Your task to perform on an android device: change text size in settings app Image 0: 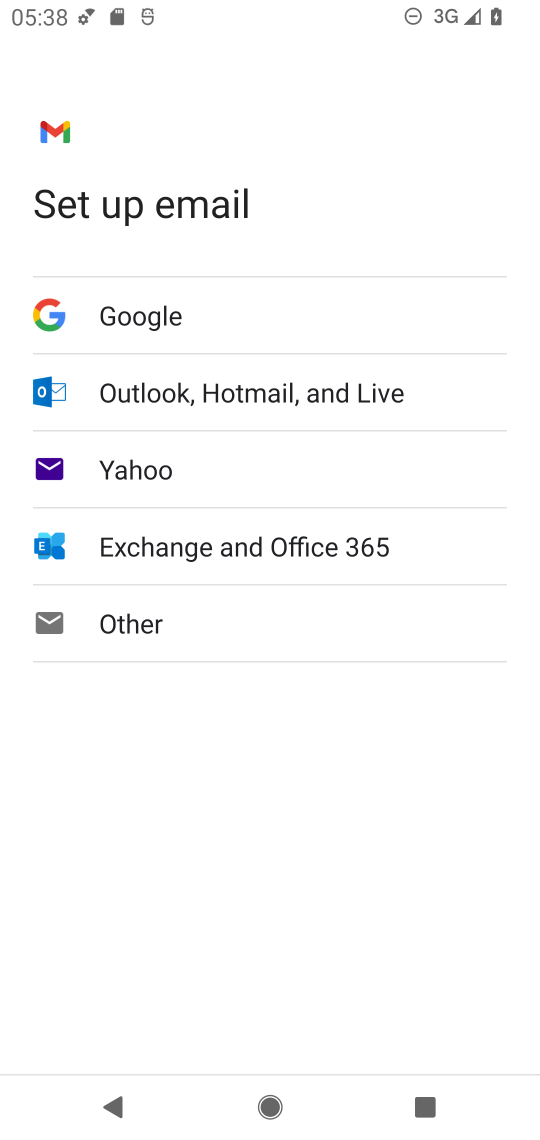
Step 0: press home button
Your task to perform on an android device: change text size in settings app Image 1: 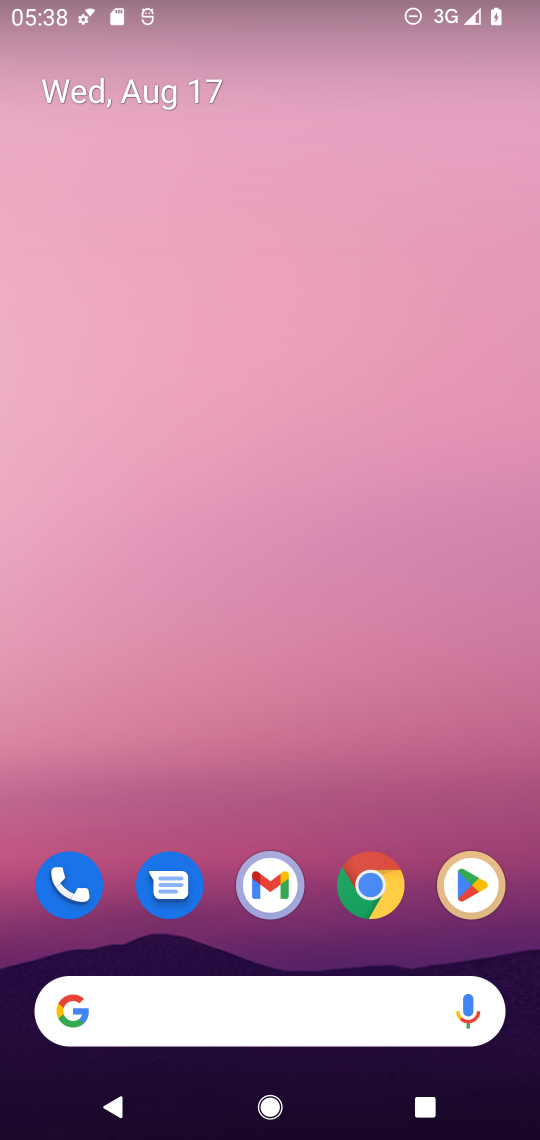
Step 1: drag from (303, 824) to (294, 53)
Your task to perform on an android device: change text size in settings app Image 2: 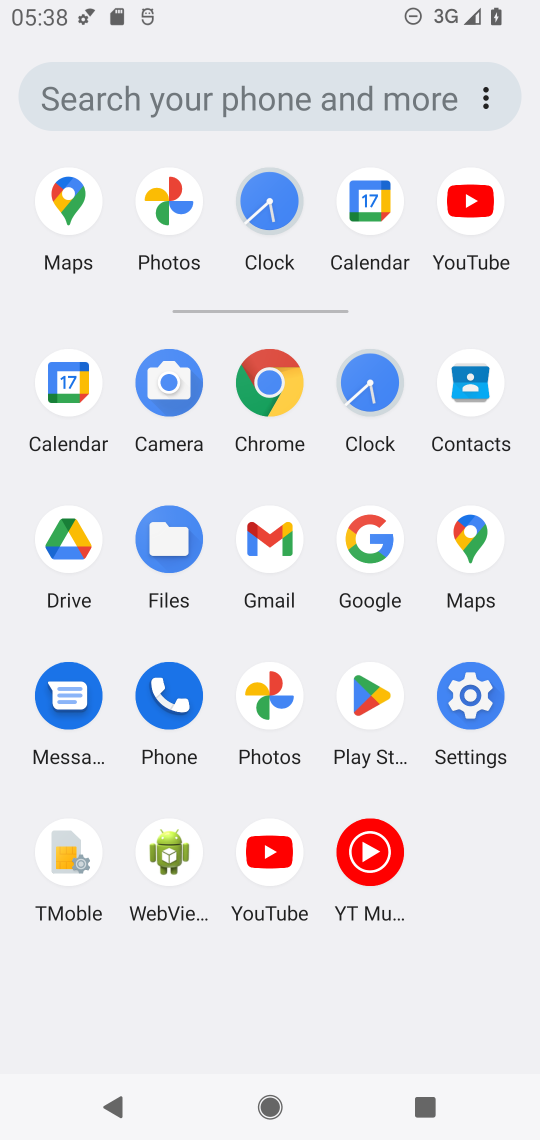
Step 2: click (465, 692)
Your task to perform on an android device: change text size in settings app Image 3: 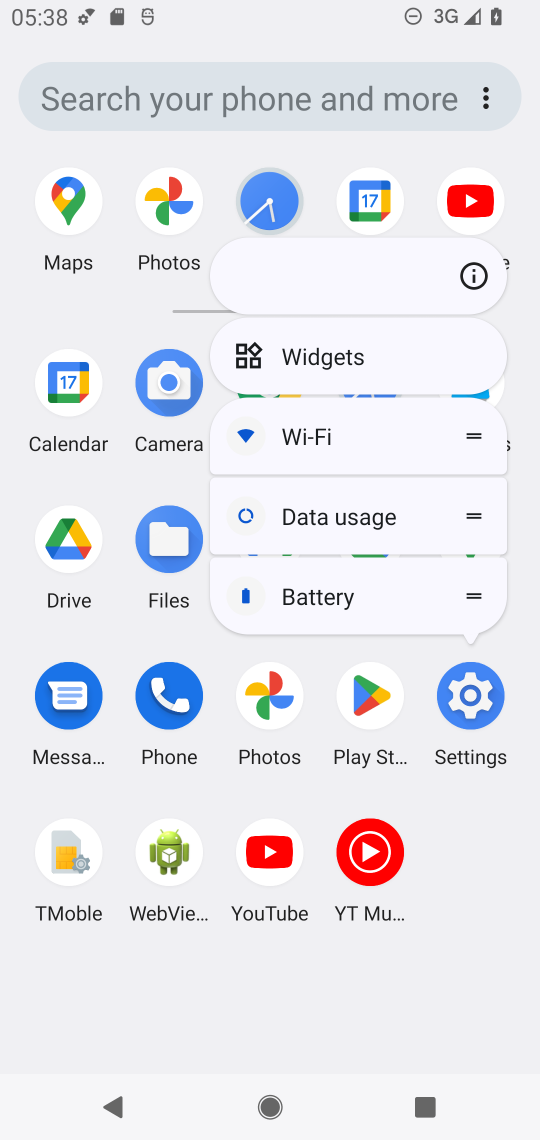
Step 3: click (465, 692)
Your task to perform on an android device: change text size in settings app Image 4: 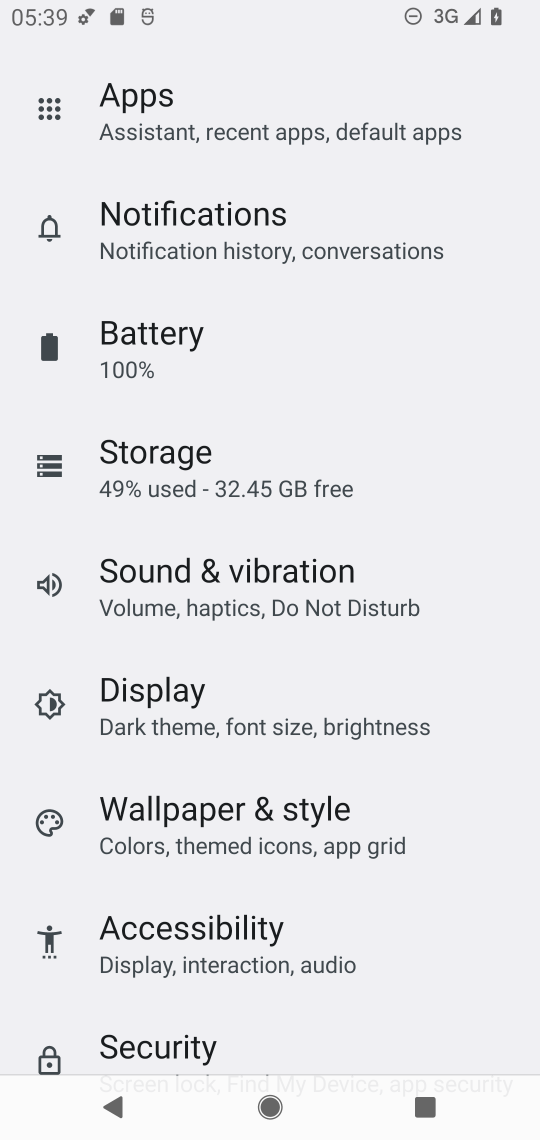
Step 4: click (166, 707)
Your task to perform on an android device: change text size in settings app Image 5: 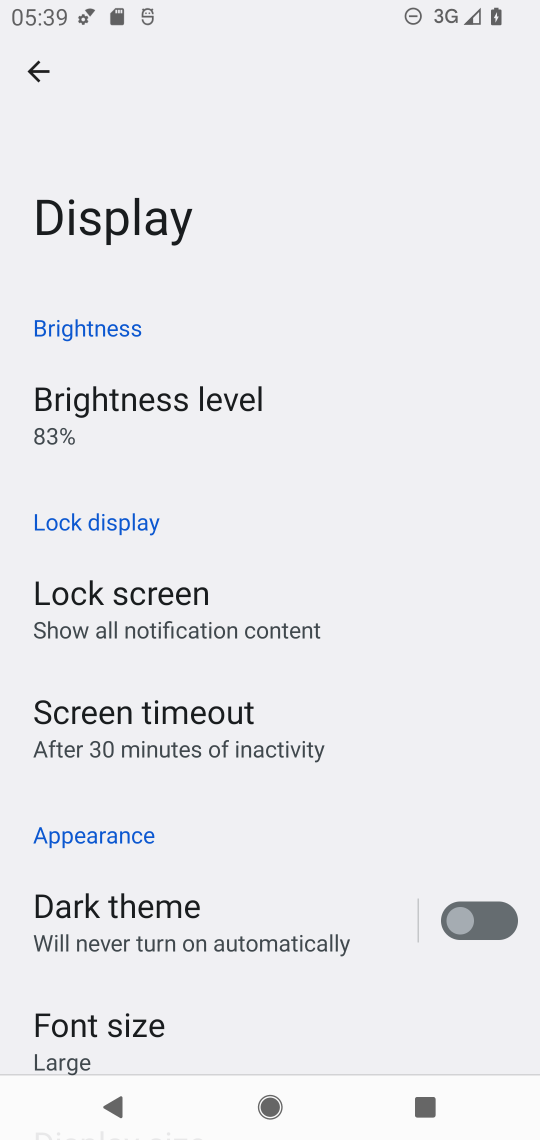
Step 5: drag from (273, 991) to (313, 601)
Your task to perform on an android device: change text size in settings app Image 6: 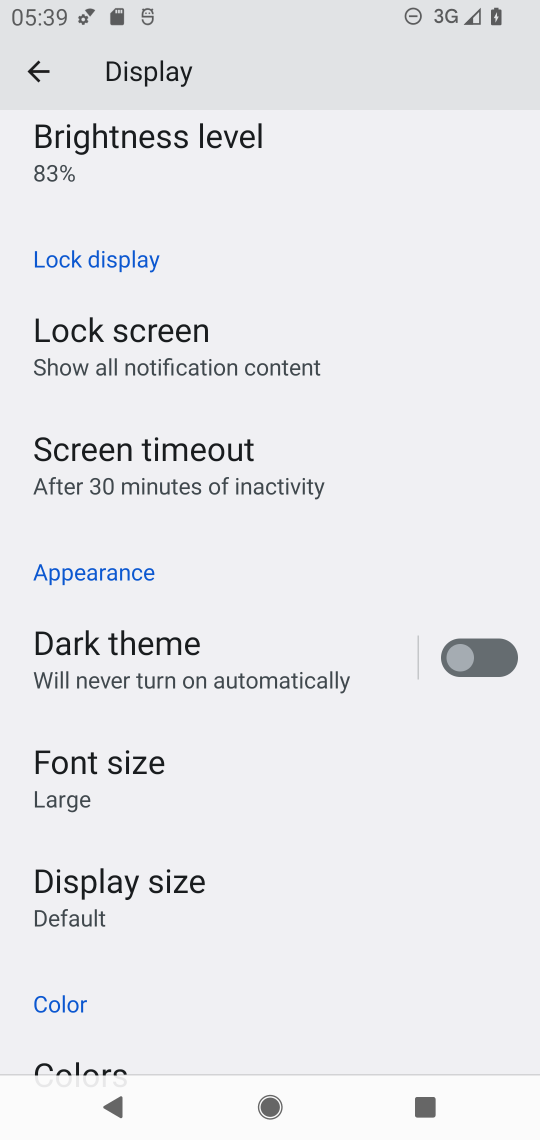
Step 6: click (130, 807)
Your task to perform on an android device: change text size in settings app Image 7: 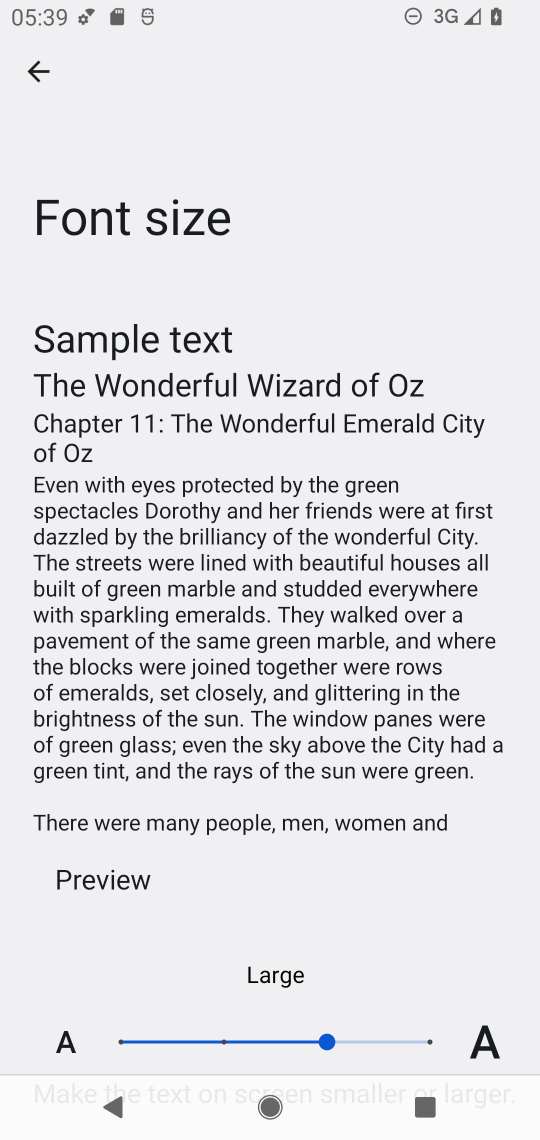
Step 7: click (179, 1033)
Your task to perform on an android device: change text size in settings app Image 8: 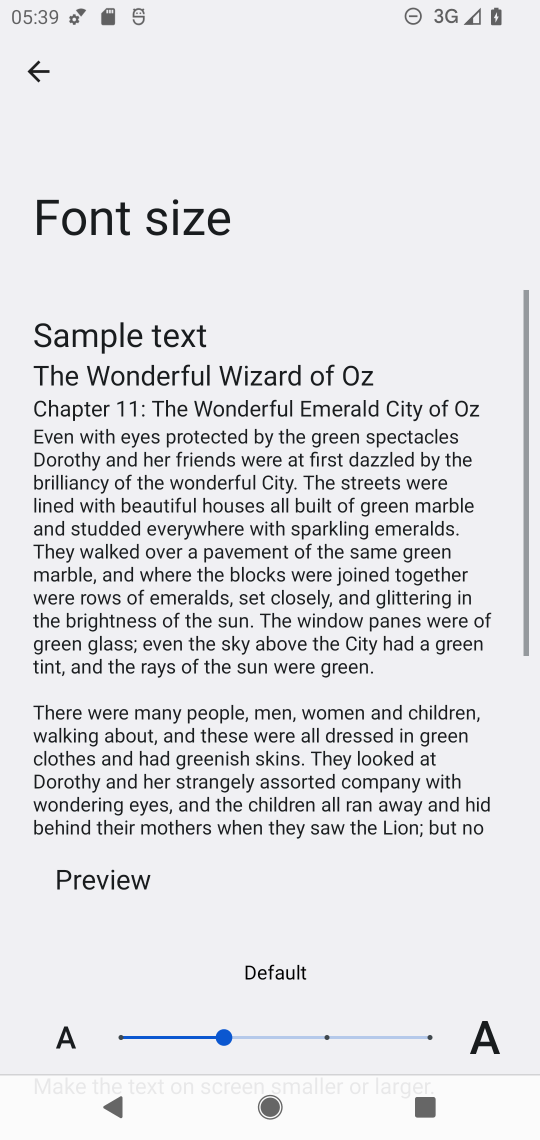
Step 8: task complete